Your task to perform on an android device: Open the Play Movies app and select the watchlist tab. Image 0: 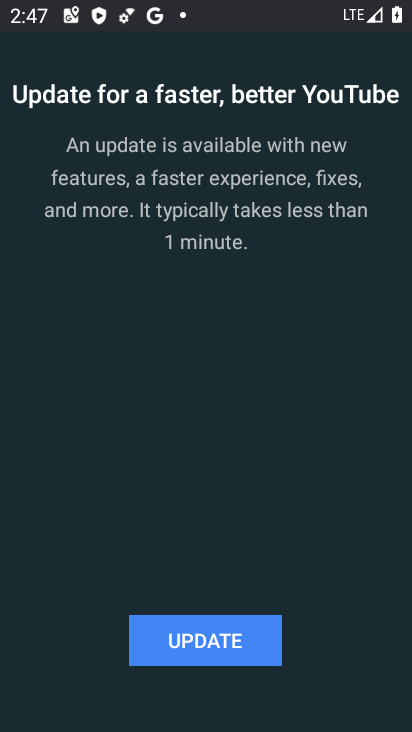
Step 0: press home button
Your task to perform on an android device: Open the Play Movies app and select the watchlist tab. Image 1: 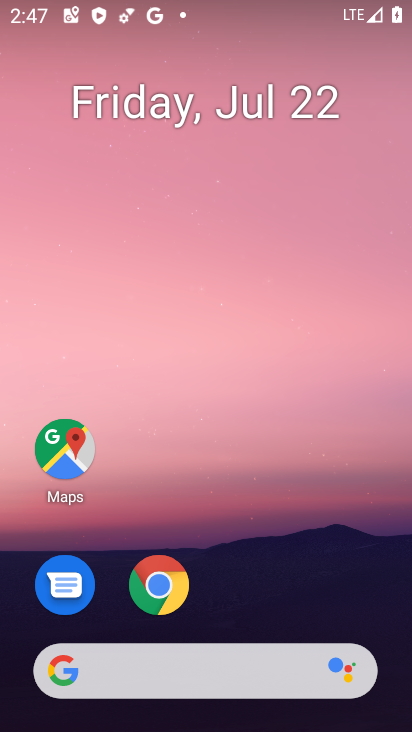
Step 1: drag from (249, 579) to (268, 47)
Your task to perform on an android device: Open the Play Movies app and select the watchlist tab. Image 2: 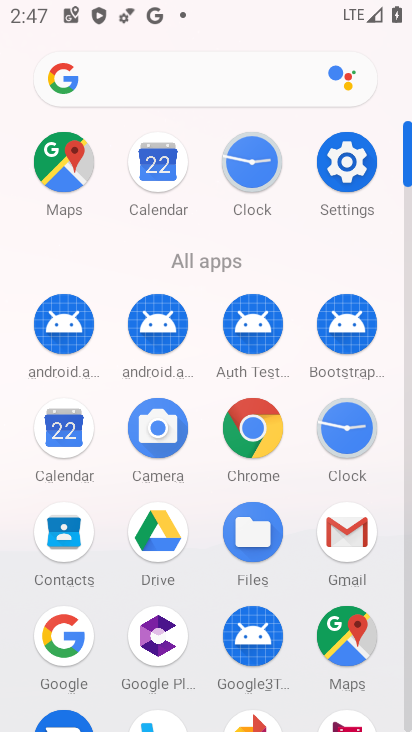
Step 2: drag from (292, 399) to (303, 243)
Your task to perform on an android device: Open the Play Movies app and select the watchlist tab. Image 3: 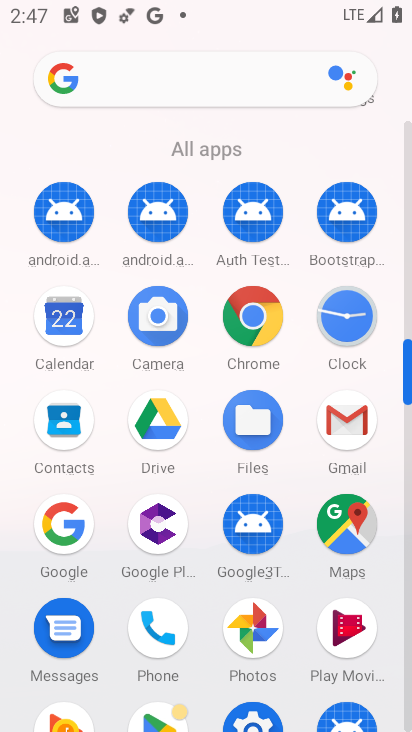
Step 3: click (342, 622)
Your task to perform on an android device: Open the Play Movies app and select the watchlist tab. Image 4: 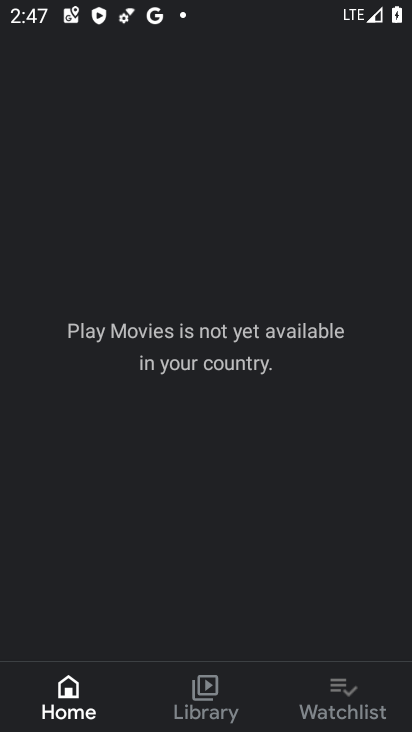
Step 4: click (335, 687)
Your task to perform on an android device: Open the Play Movies app and select the watchlist tab. Image 5: 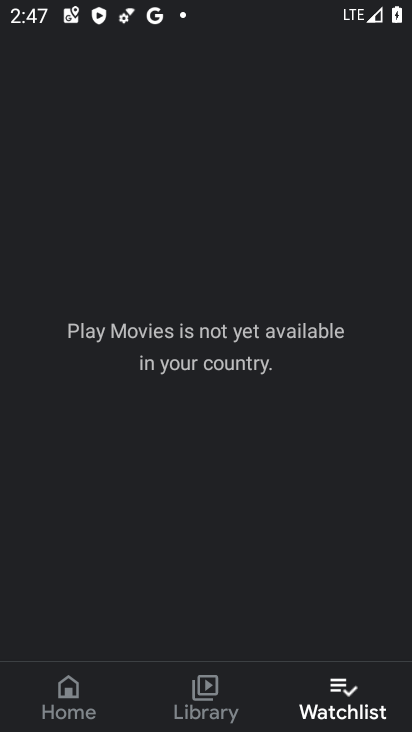
Step 5: task complete